Your task to perform on an android device: all mails in gmail Image 0: 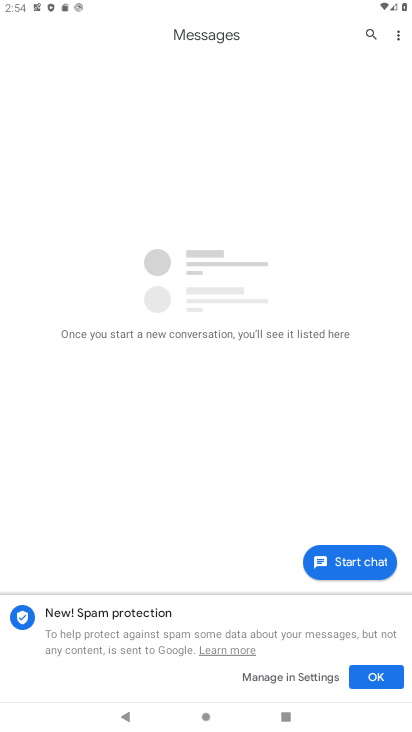
Step 0: press home button
Your task to perform on an android device: all mails in gmail Image 1: 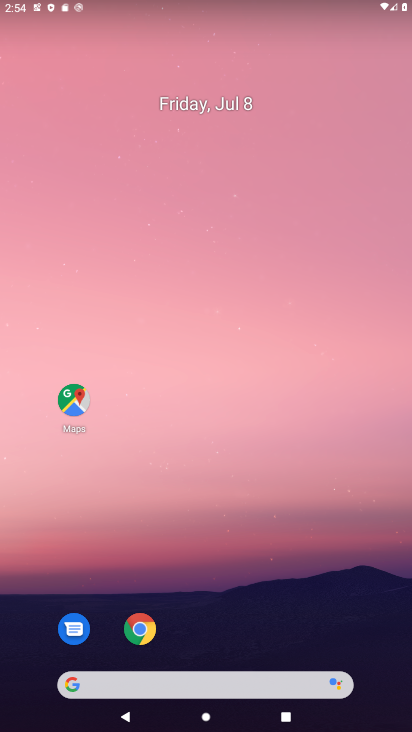
Step 1: drag from (47, 681) to (300, 20)
Your task to perform on an android device: all mails in gmail Image 2: 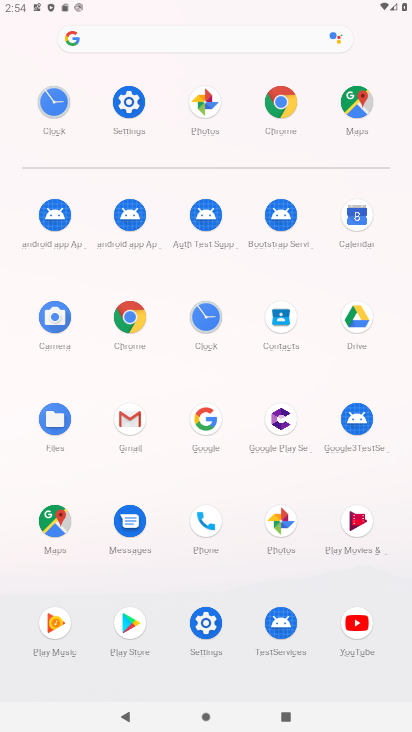
Step 2: click (138, 406)
Your task to perform on an android device: all mails in gmail Image 3: 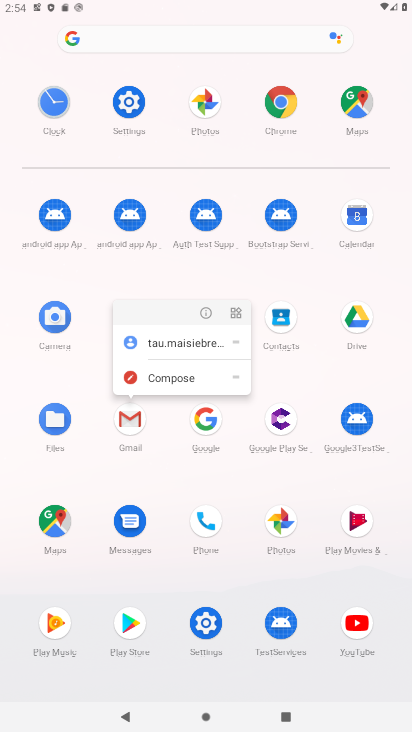
Step 3: click (122, 421)
Your task to perform on an android device: all mails in gmail Image 4: 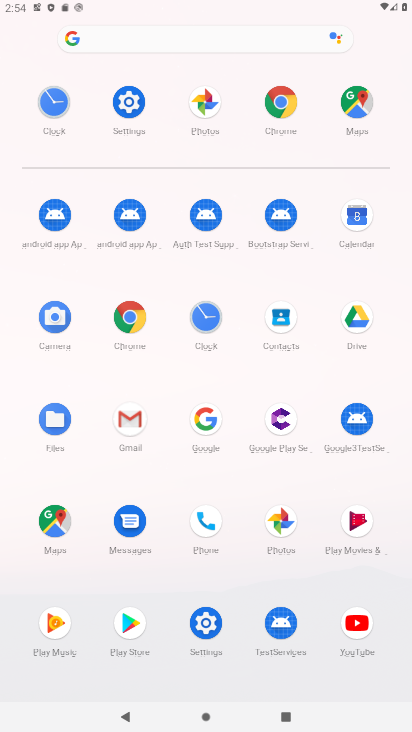
Step 4: click (122, 421)
Your task to perform on an android device: all mails in gmail Image 5: 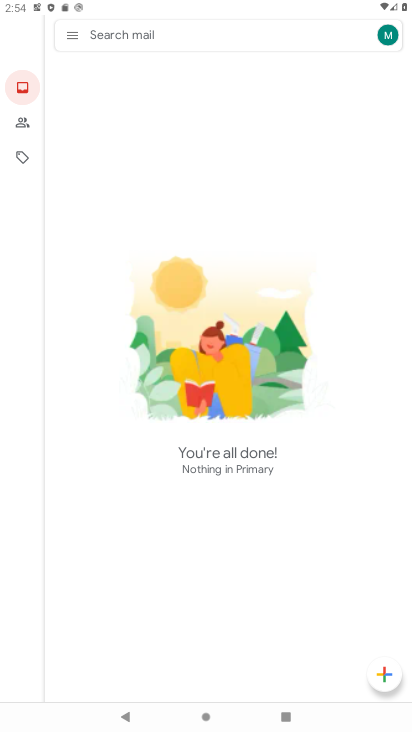
Step 5: click (72, 29)
Your task to perform on an android device: all mails in gmail Image 6: 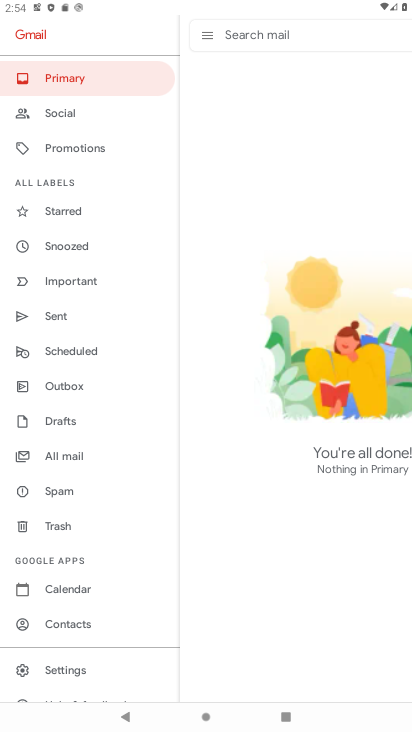
Step 6: click (71, 458)
Your task to perform on an android device: all mails in gmail Image 7: 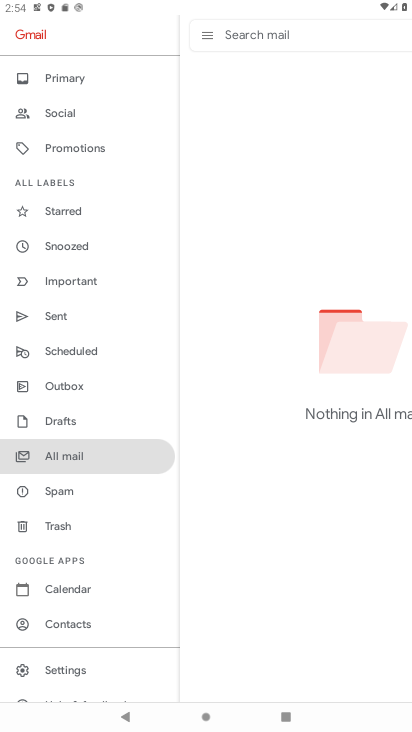
Step 7: task complete